Your task to perform on an android device: turn on showing notifications on the lock screen Image 0: 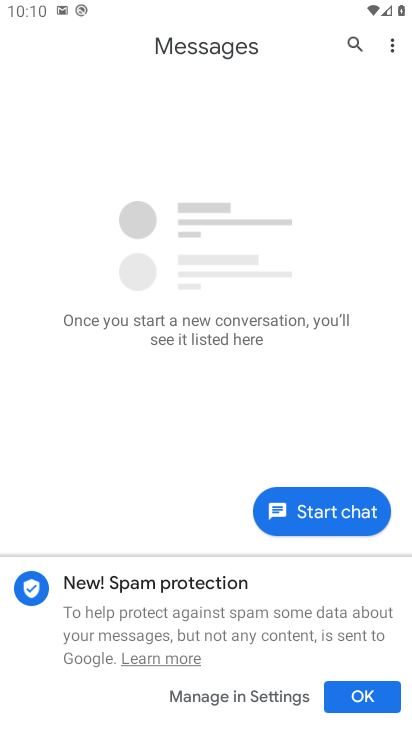
Step 0: press home button
Your task to perform on an android device: turn on showing notifications on the lock screen Image 1: 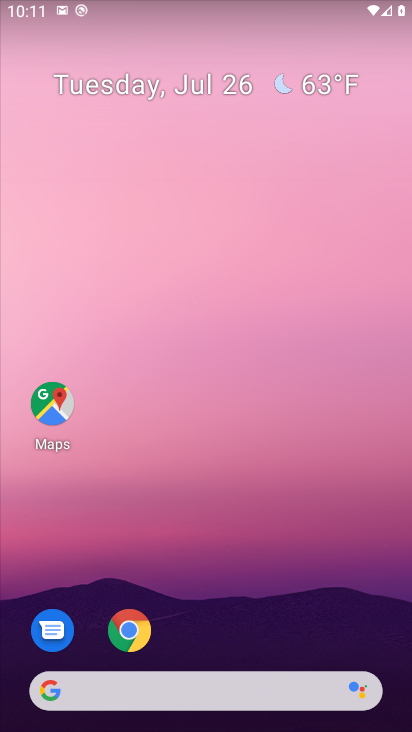
Step 1: drag from (209, 534) to (235, 170)
Your task to perform on an android device: turn on showing notifications on the lock screen Image 2: 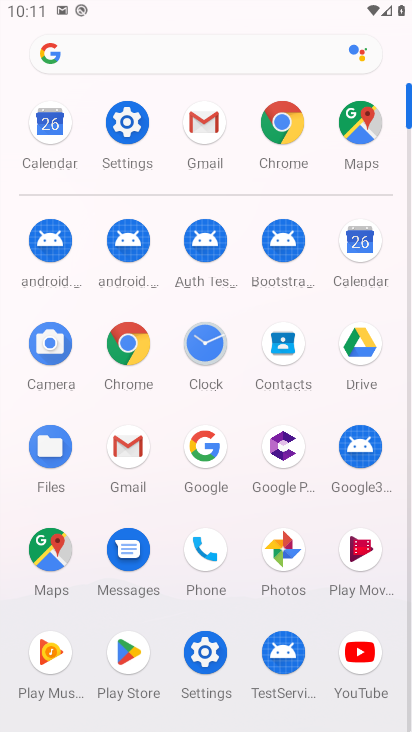
Step 2: click (120, 120)
Your task to perform on an android device: turn on showing notifications on the lock screen Image 3: 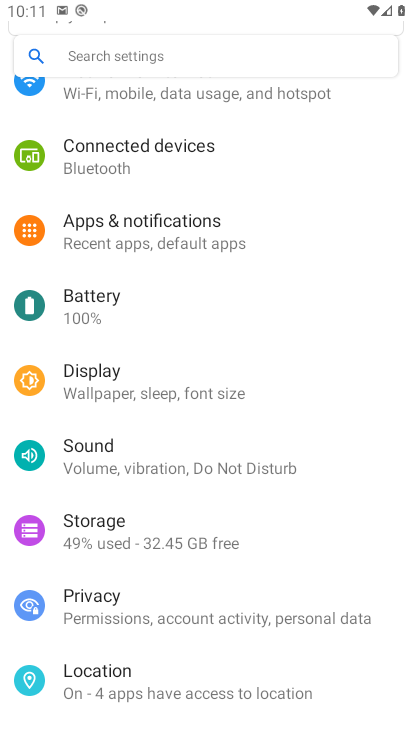
Step 3: click (183, 230)
Your task to perform on an android device: turn on showing notifications on the lock screen Image 4: 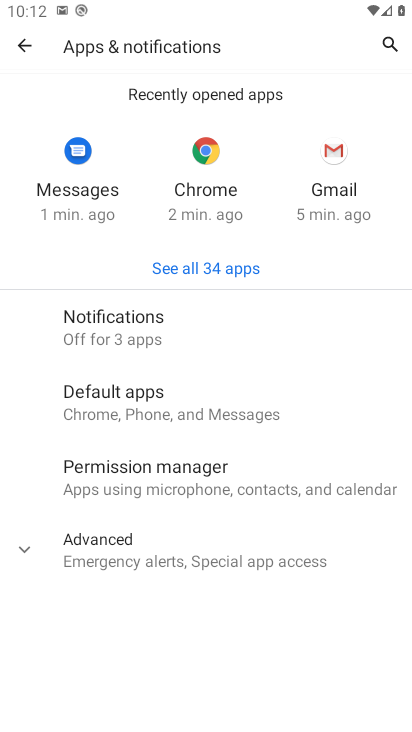
Step 4: click (117, 549)
Your task to perform on an android device: turn on showing notifications on the lock screen Image 5: 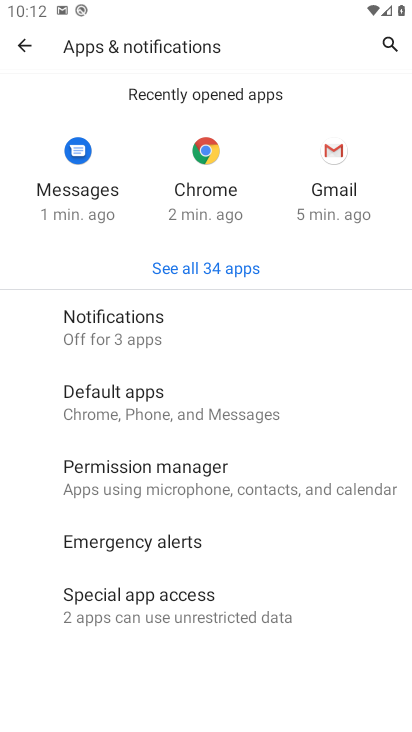
Step 5: click (129, 315)
Your task to perform on an android device: turn on showing notifications on the lock screen Image 6: 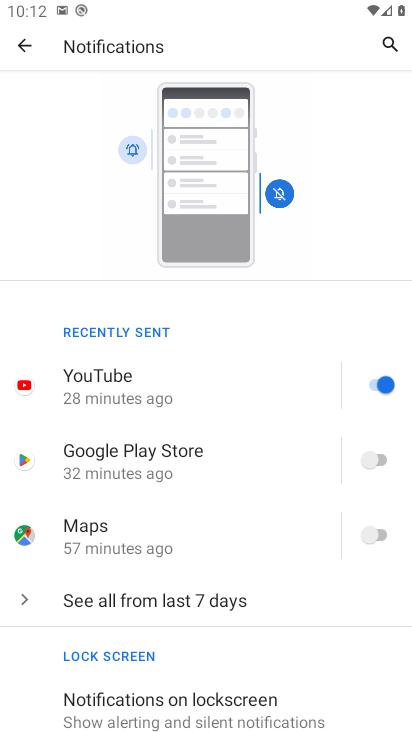
Step 6: click (211, 694)
Your task to perform on an android device: turn on showing notifications on the lock screen Image 7: 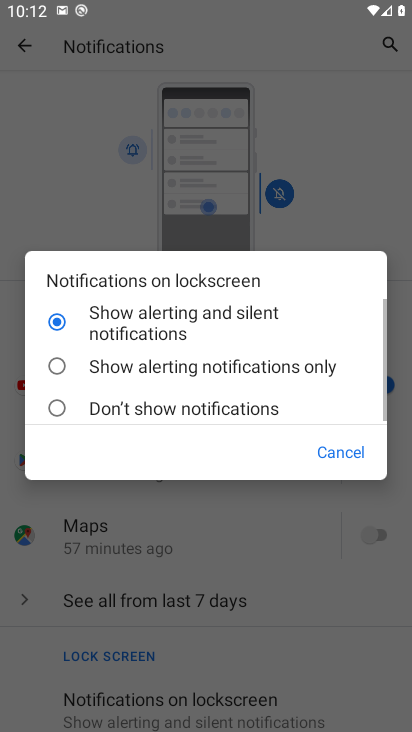
Step 7: click (59, 360)
Your task to perform on an android device: turn on showing notifications on the lock screen Image 8: 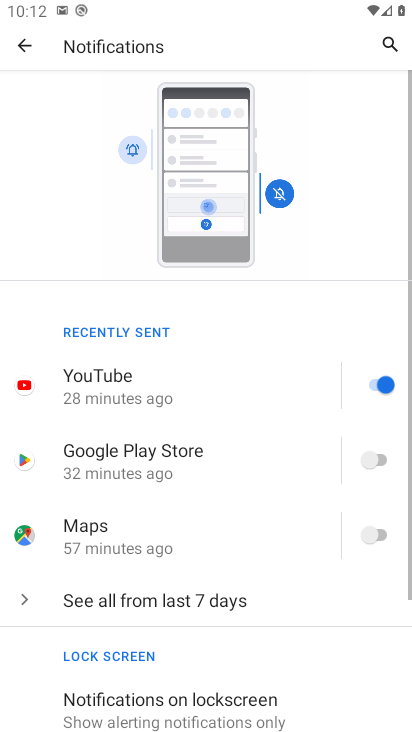
Step 8: task complete